Your task to perform on an android device: Set the phone to "Do not disturb". Image 0: 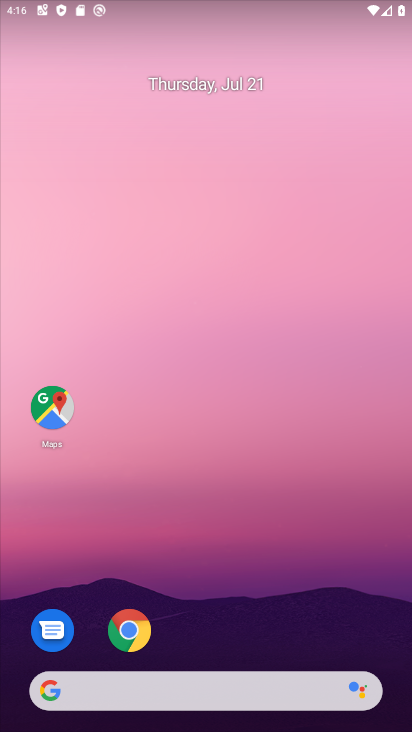
Step 0: click (180, 290)
Your task to perform on an android device: Set the phone to "Do not disturb". Image 1: 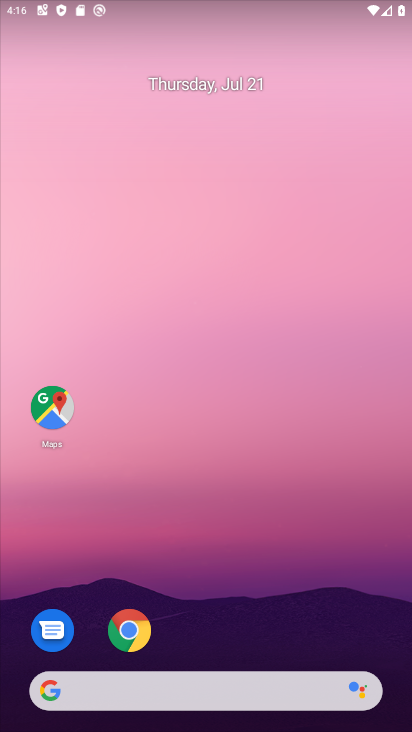
Step 1: drag from (35, 680) to (207, 113)
Your task to perform on an android device: Set the phone to "Do not disturb". Image 2: 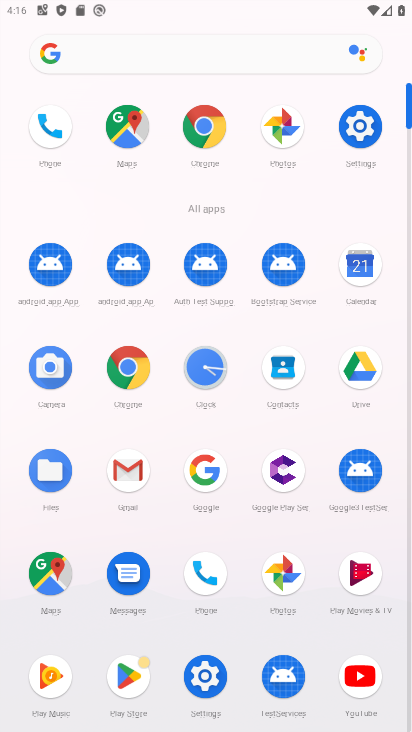
Step 2: click (207, 670)
Your task to perform on an android device: Set the phone to "Do not disturb". Image 3: 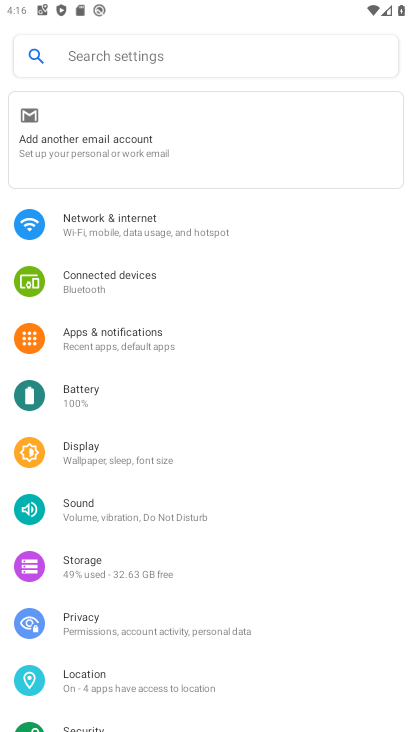
Step 3: click (170, 504)
Your task to perform on an android device: Set the phone to "Do not disturb". Image 4: 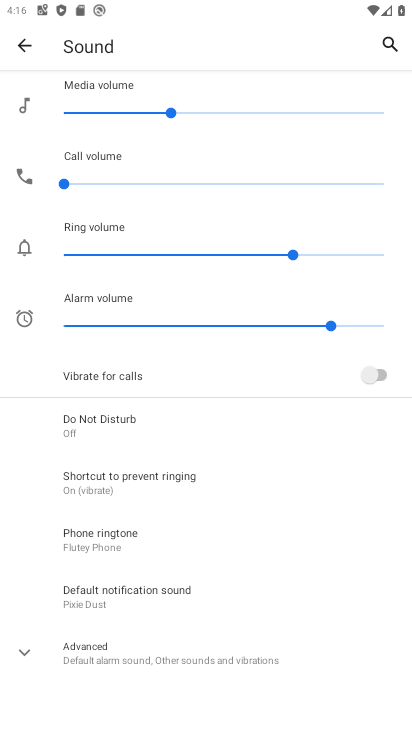
Step 4: click (100, 421)
Your task to perform on an android device: Set the phone to "Do not disturb". Image 5: 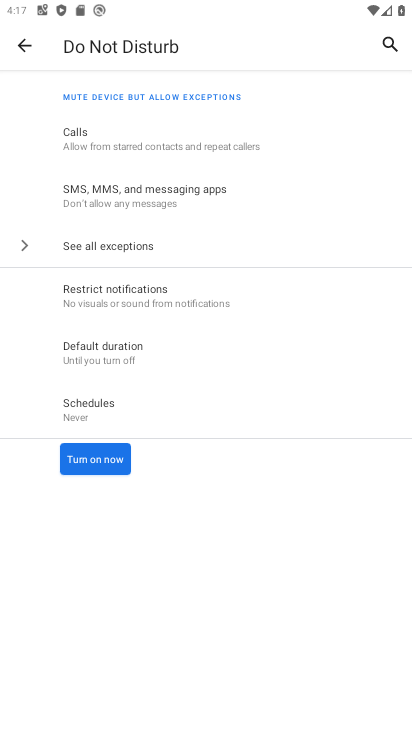
Step 5: click (116, 457)
Your task to perform on an android device: Set the phone to "Do not disturb". Image 6: 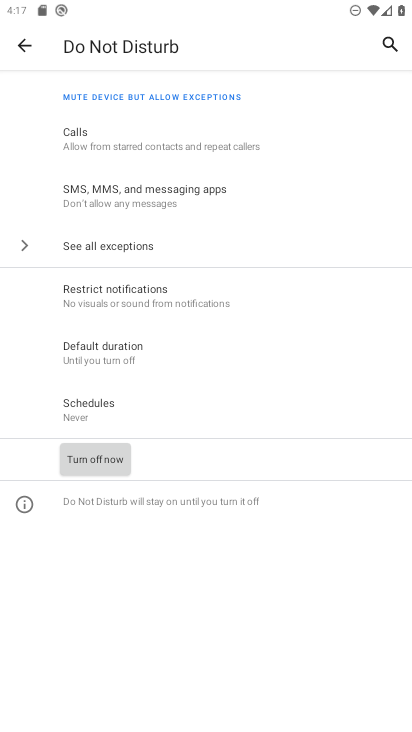
Step 6: task complete